Your task to perform on an android device: Go to settings Image 0: 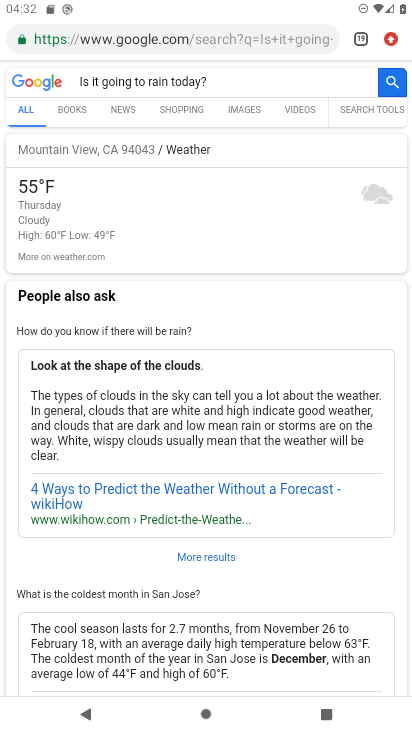
Step 0: press home button
Your task to perform on an android device: Go to settings Image 1: 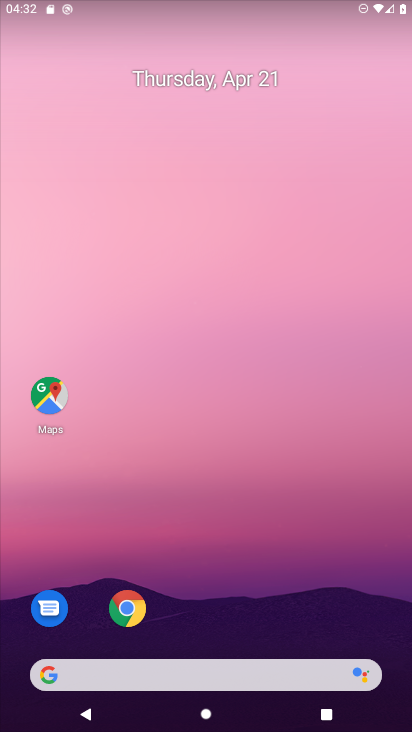
Step 1: drag from (198, 589) to (140, 219)
Your task to perform on an android device: Go to settings Image 2: 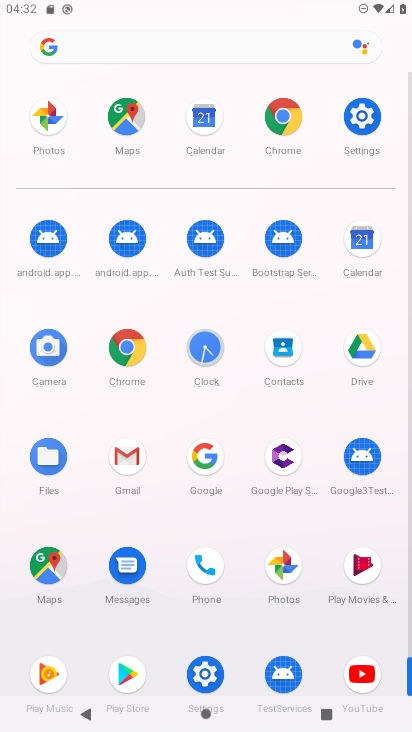
Step 2: click (356, 113)
Your task to perform on an android device: Go to settings Image 3: 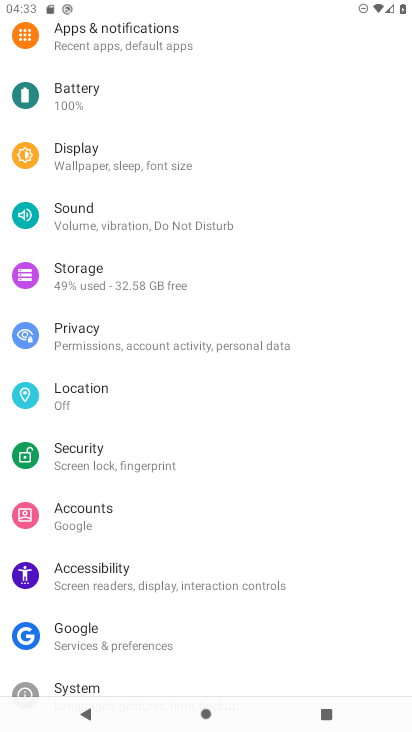
Step 3: task complete